Your task to perform on an android device: toggle show notifications on the lock screen Image 0: 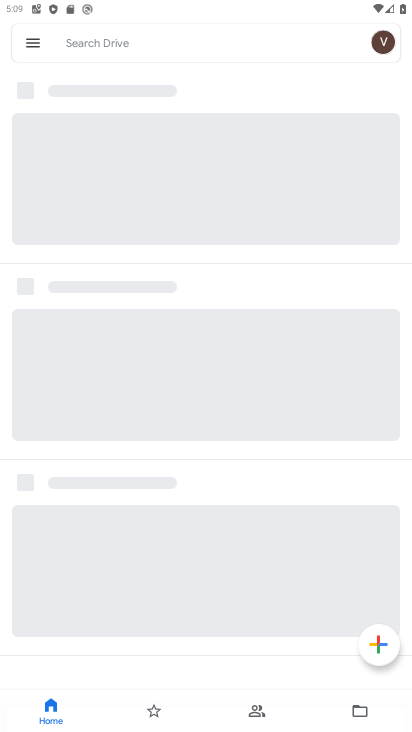
Step 0: press home button
Your task to perform on an android device: toggle show notifications on the lock screen Image 1: 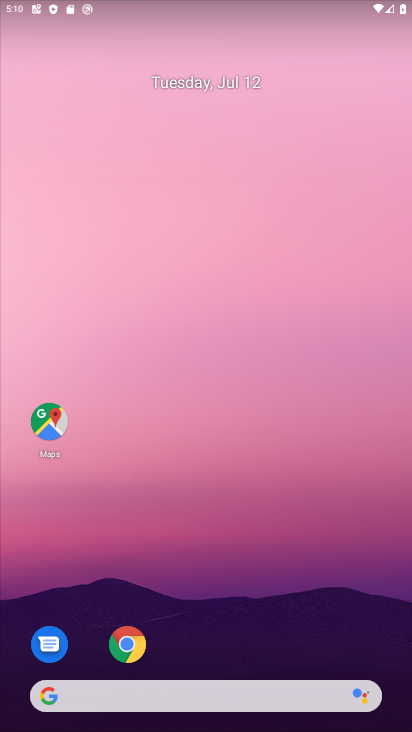
Step 1: drag from (251, 611) to (157, 23)
Your task to perform on an android device: toggle show notifications on the lock screen Image 2: 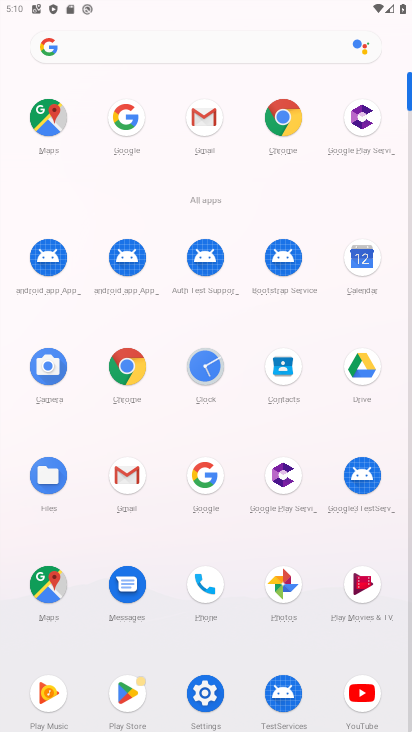
Step 2: click (207, 703)
Your task to perform on an android device: toggle show notifications on the lock screen Image 3: 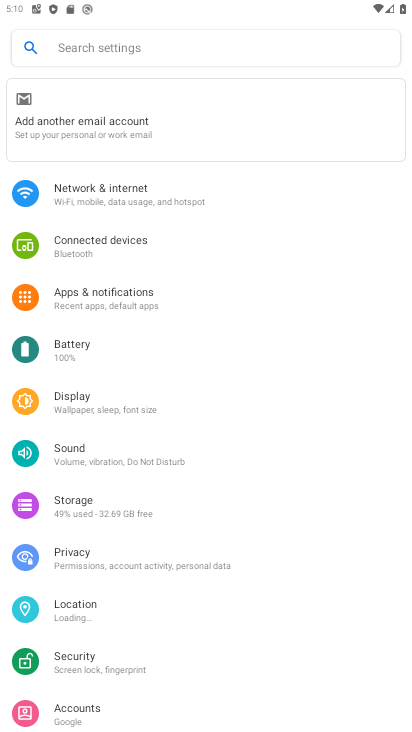
Step 3: click (123, 286)
Your task to perform on an android device: toggle show notifications on the lock screen Image 4: 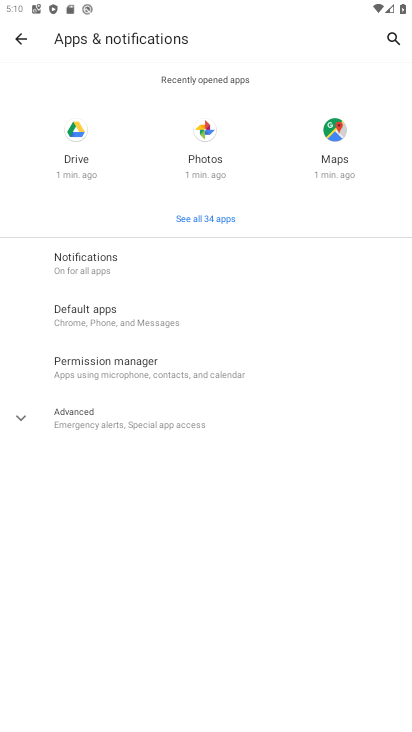
Step 4: click (79, 274)
Your task to perform on an android device: toggle show notifications on the lock screen Image 5: 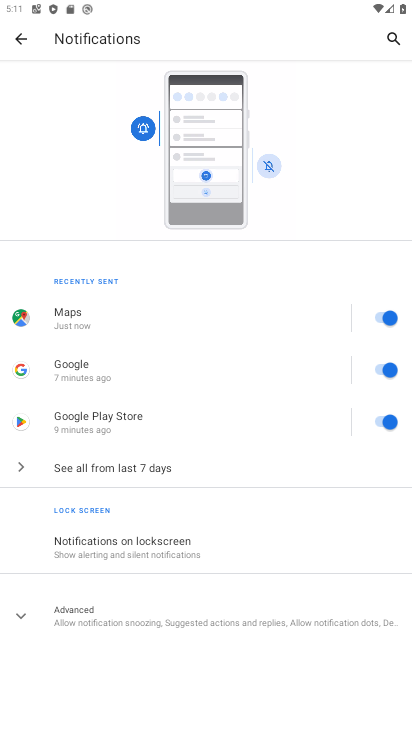
Step 5: click (132, 538)
Your task to perform on an android device: toggle show notifications on the lock screen Image 6: 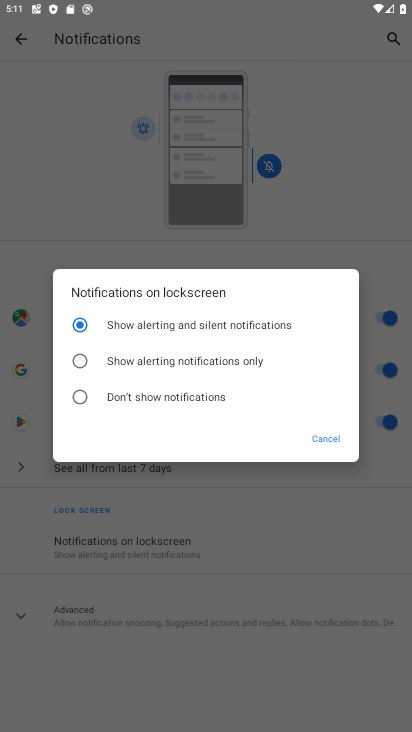
Step 6: click (116, 397)
Your task to perform on an android device: toggle show notifications on the lock screen Image 7: 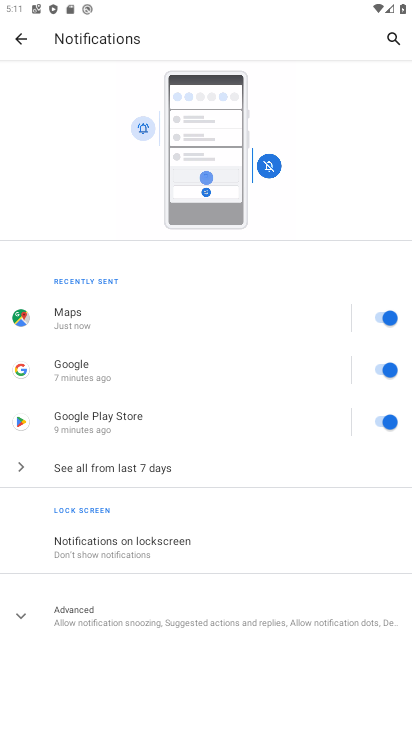
Step 7: task complete